Your task to perform on an android device: turn on bluetooth scan Image 0: 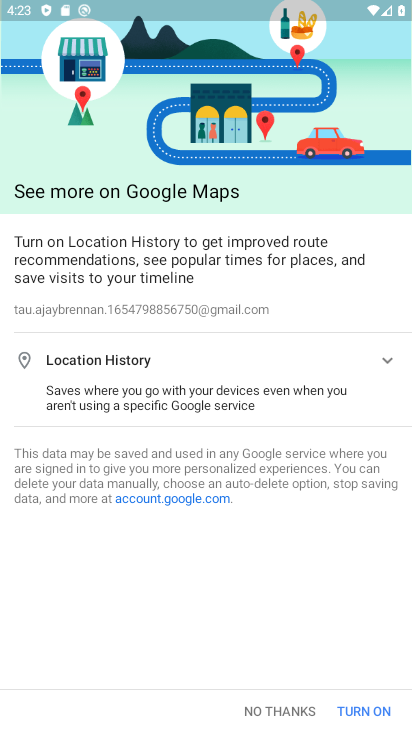
Step 0: press home button
Your task to perform on an android device: turn on bluetooth scan Image 1: 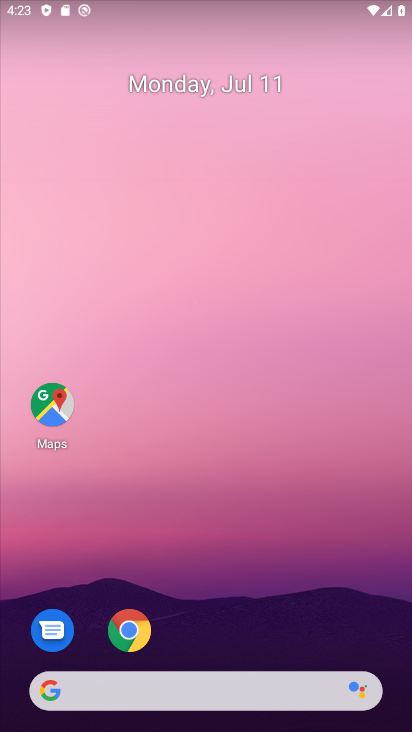
Step 1: drag from (239, 663) to (325, 66)
Your task to perform on an android device: turn on bluetooth scan Image 2: 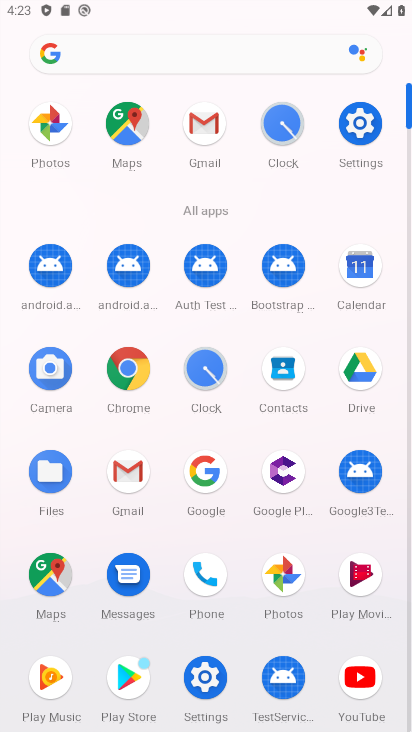
Step 2: click (202, 673)
Your task to perform on an android device: turn on bluetooth scan Image 3: 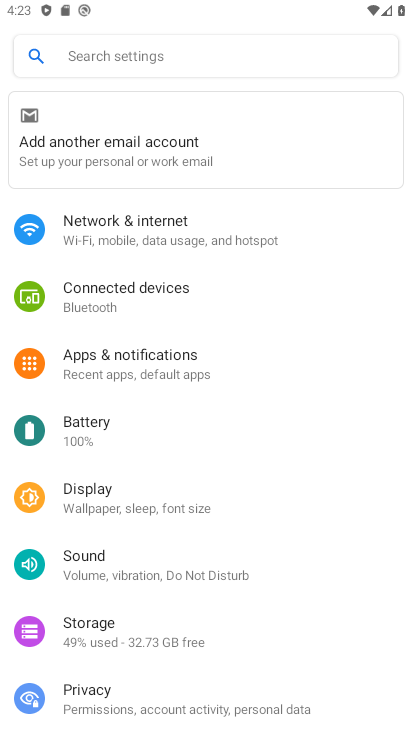
Step 3: click (207, 248)
Your task to perform on an android device: turn on bluetooth scan Image 4: 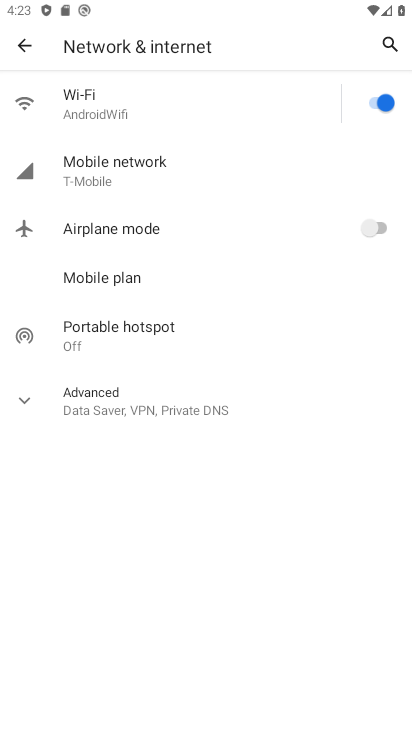
Step 4: press back button
Your task to perform on an android device: turn on bluetooth scan Image 5: 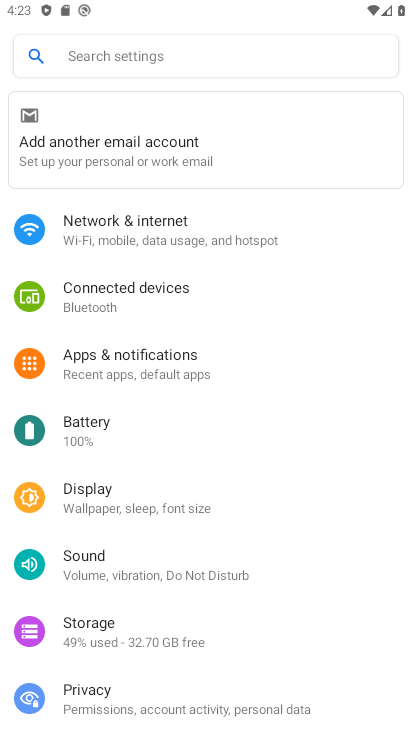
Step 5: click (177, 305)
Your task to perform on an android device: turn on bluetooth scan Image 6: 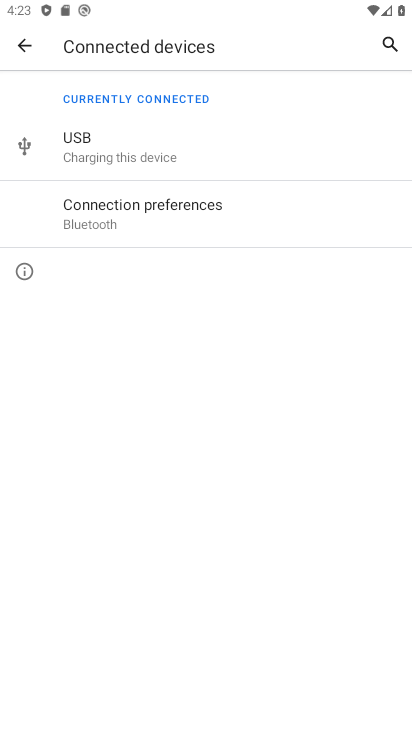
Step 6: click (260, 208)
Your task to perform on an android device: turn on bluetooth scan Image 7: 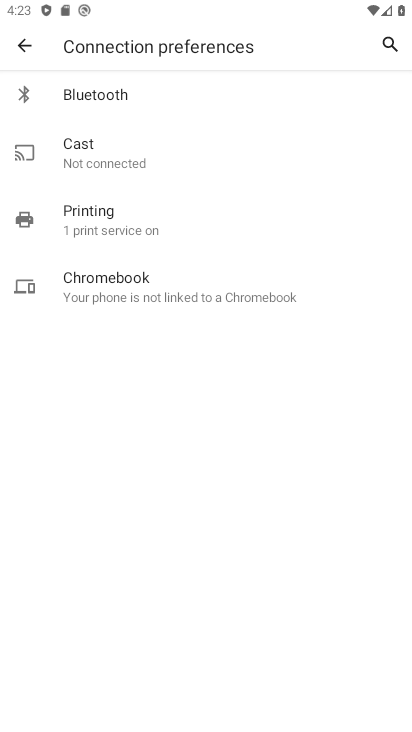
Step 7: click (318, 72)
Your task to perform on an android device: turn on bluetooth scan Image 8: 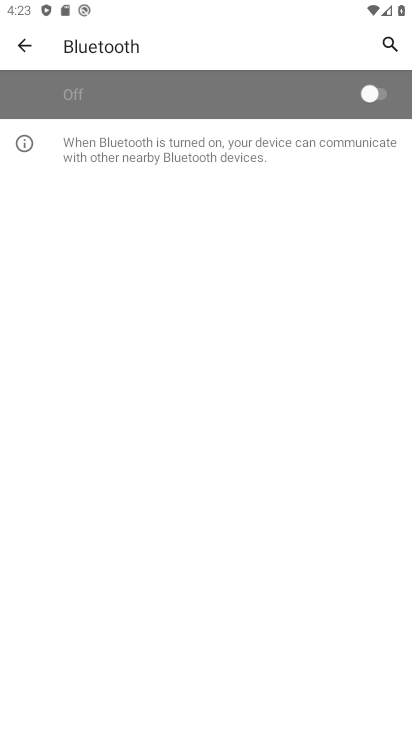
Step 8: click (391, 79)
Your task to perform on an android device: turn on bluetooth scan Image 9: 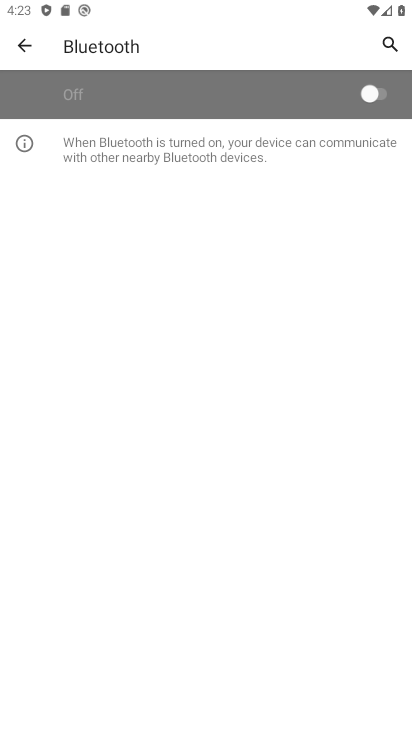
Step 9: click (393, 91)
Your task to perform on an android device: turn on bluetooth scan Image 10: 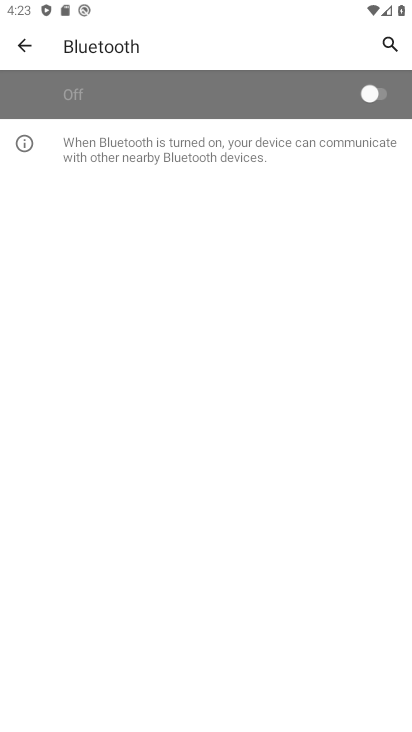
Step 10: task complete